Your task to perform on an android device: open a new tab in the chrome app Image 0: 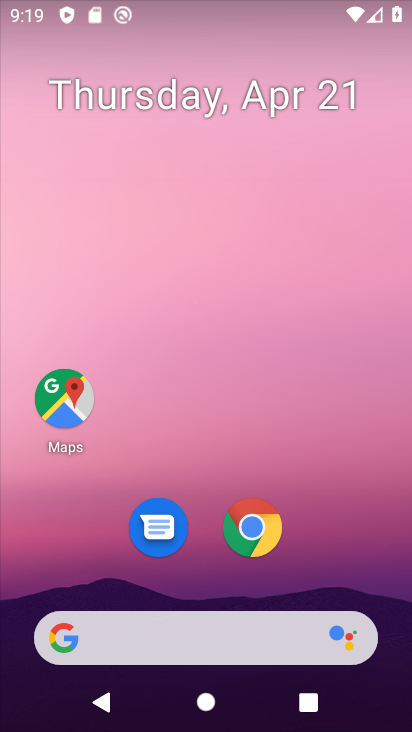
Step 0: click (263, 521)
Your task to perform on an android device: open a new tab in the chrome app Image 1: 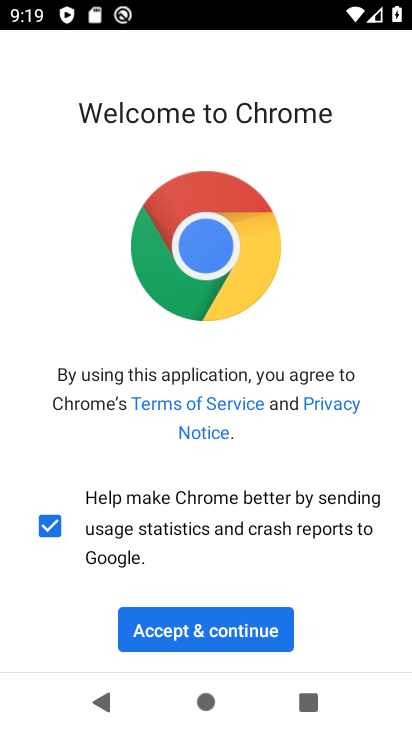
Step 1: click (187, 635)
Your task to perform on an android device: open a new tab in the chrome app Image 2: 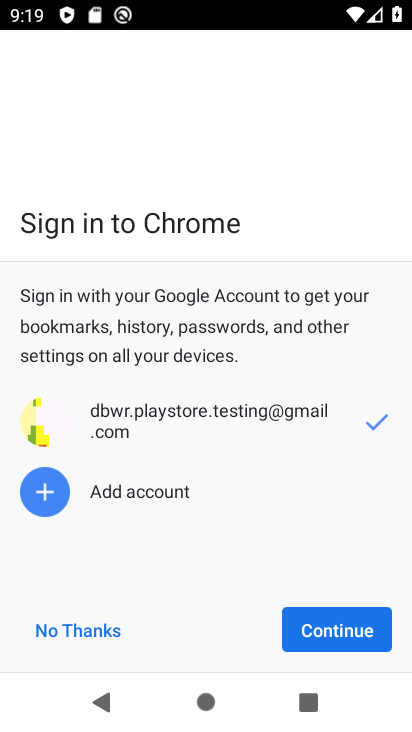
Step 2: click (359, 643)
Your task to perform on an android device: open a new tab in the chrome app Image 3: 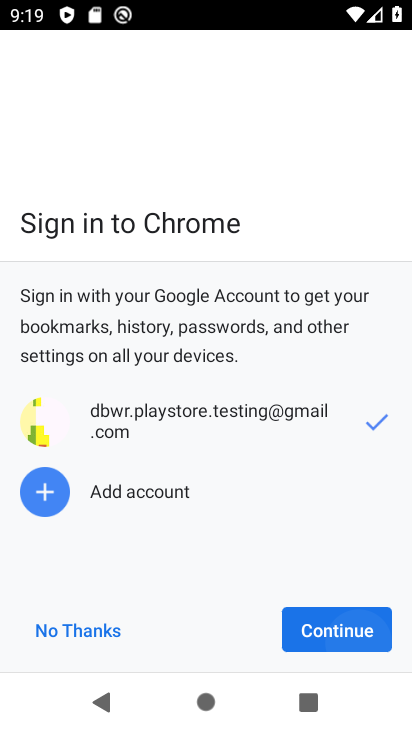
Step 3: click (359, 643)
Your task to perform on an android device: open a new tab in the chrome app Image 4: 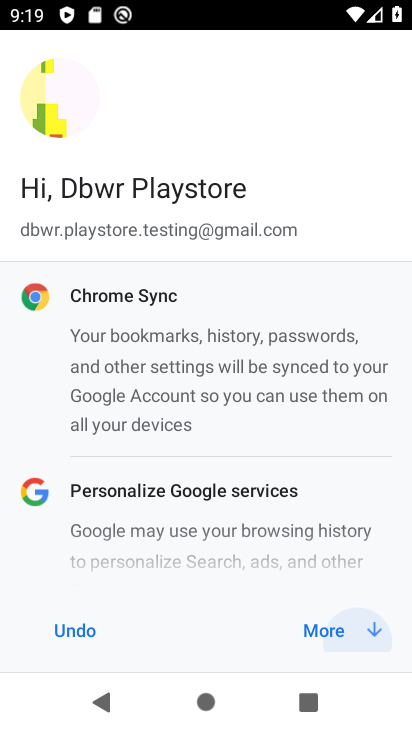
Step 4: click (359, 643)
Your task to perform on an android device: open a new tab in the chrome app Image 5: 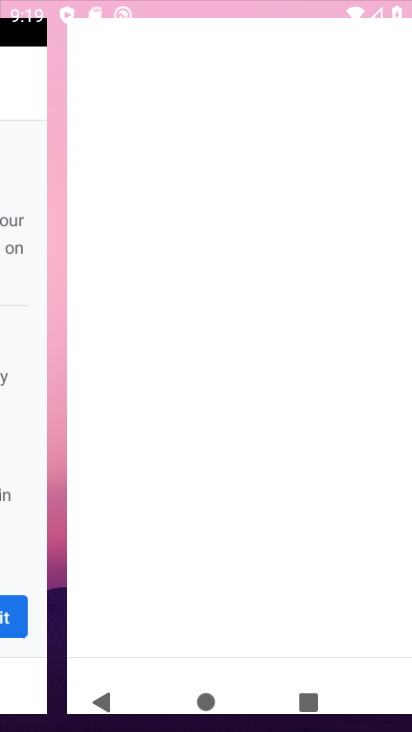
Step 5: click (359, 632)
Your task to perform on an android device: open a new tab in the chrome app Image 6: 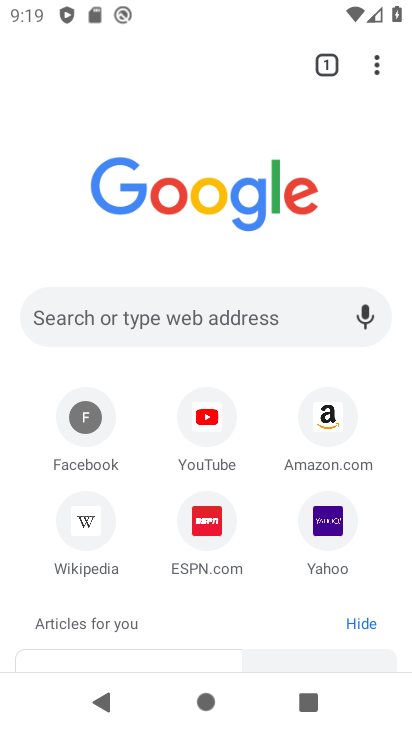
Step 6: task complete